Your task to perform on an android device: Open internet settings Image 0: 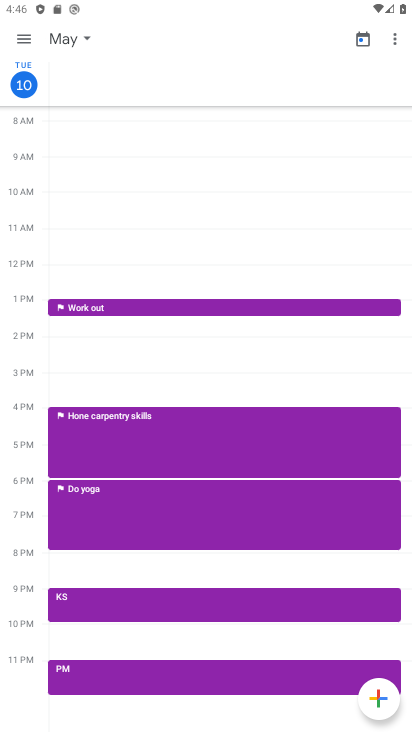
Step 0: press home button
Your task to perform on an android device: Open internet settings Image 1: 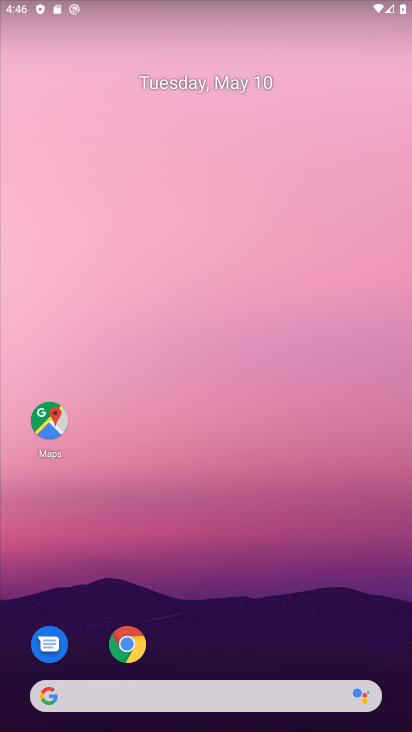
Step 1: drag from (214, 662) to (284, 8)
Your task to perform on an android device: Open internet settings Image 2: 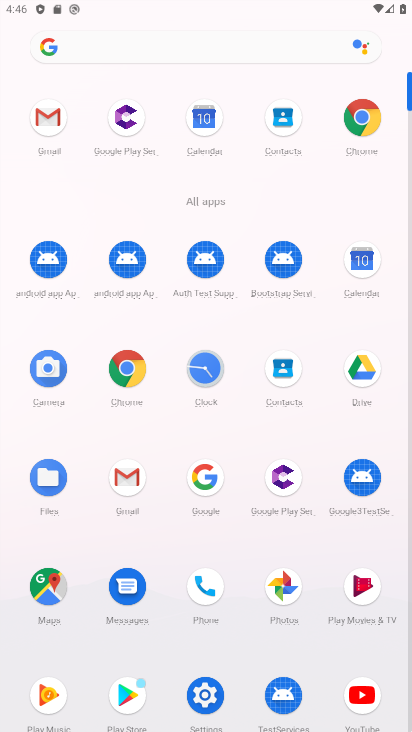
Step 2: click (202, 693)
Your task to perform on an android device: Open internet settings Image 3: 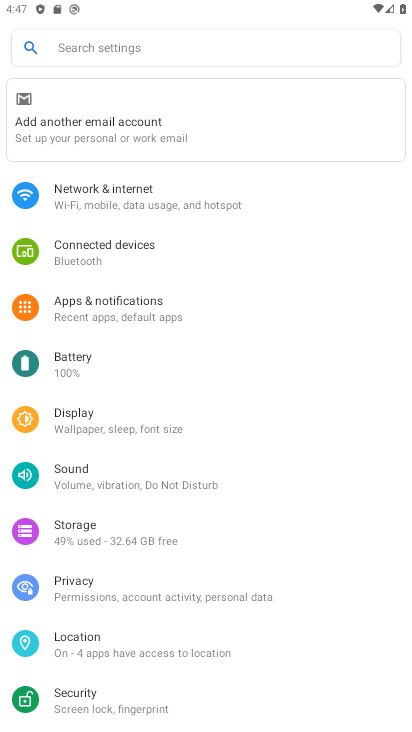
Step 3: click (145, 188)
Your task to perform on an android device: Open internet settings Image 4: 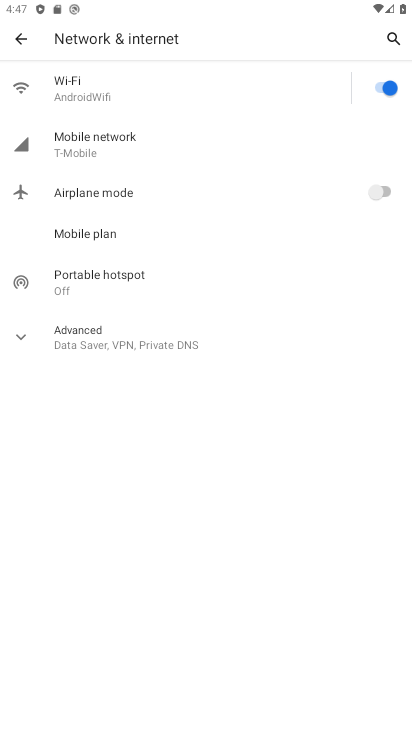
Step 4: click (19, 328)
Your task to perform on an android device: Open internet settings Image 5: 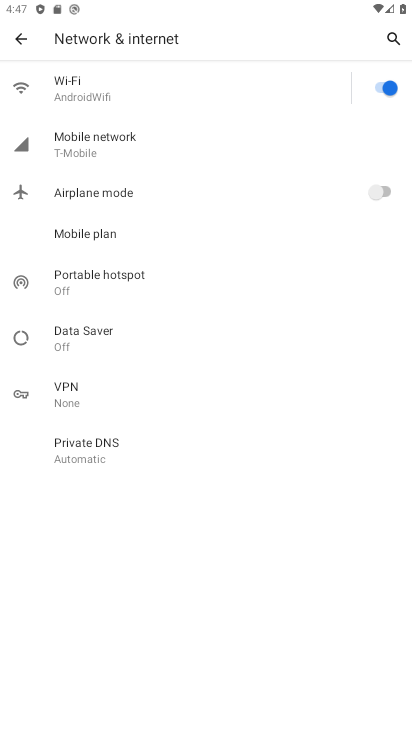
Step 5: task complete